Your task to perform on an android device: clear history in the chrome app Image 0: 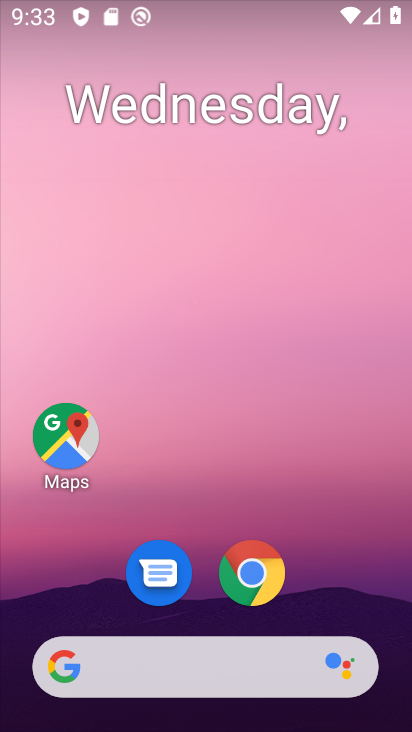
Step 0: click (252, 575)
Your task to perform on an android device: clear history in the chrome app Image 1: 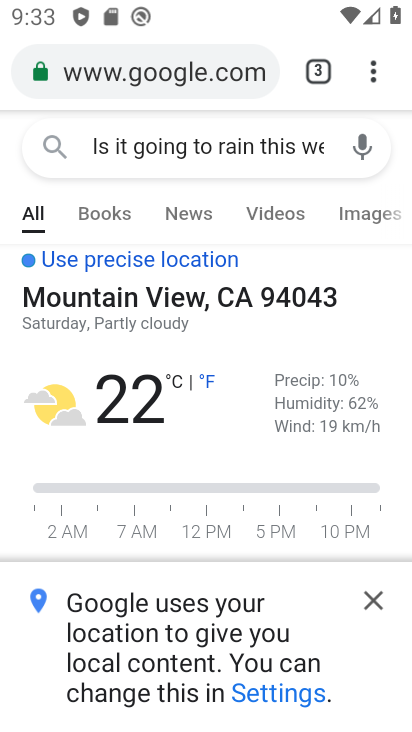
Step 1: click (368, 69)
Your task to perform on an android device: clear history in the chrome app Image 2: 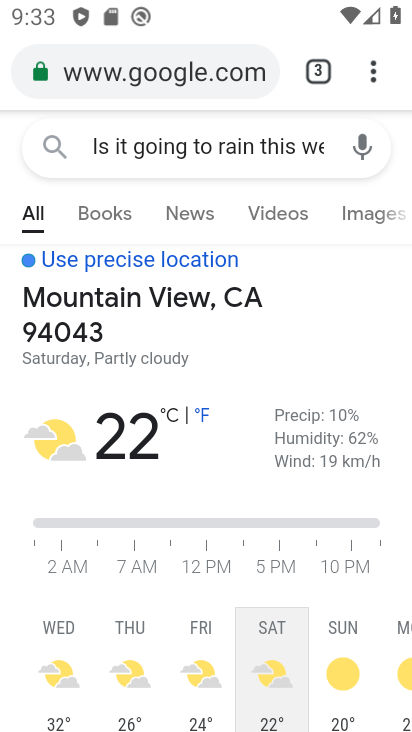
Step 2: click (360, 67)
Your task to perform on an android device: clear history in the chrome app Image 3: 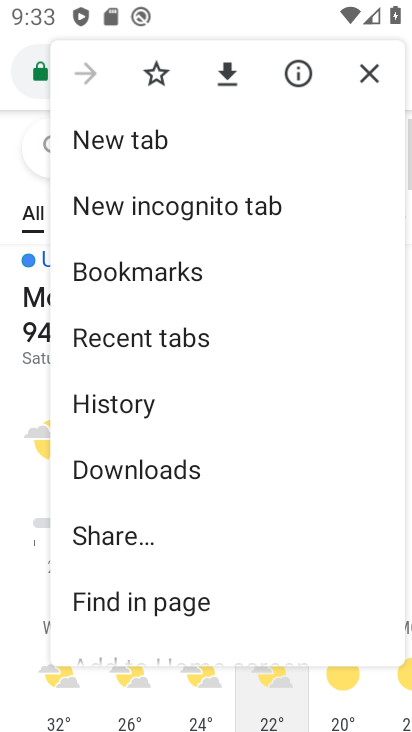
Step 3: click (160, 406)
Your task to perform on an android device: clear history in the chrome app Image 4: 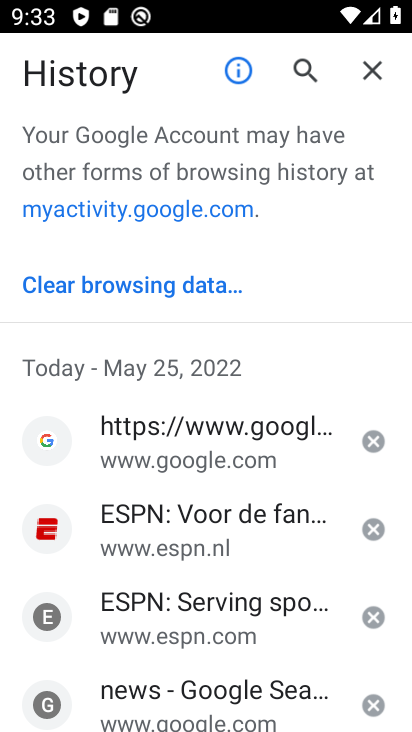
Step 4: click (158, 279)
Your task to perform on an android device: clear history in the chrome app Image 5: 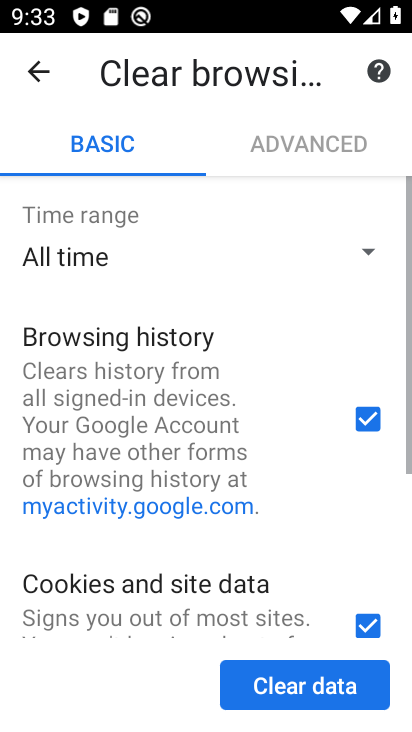
Step 5: click (323, 689)
Your task to perform on an android device: clear history in the chrome app Image 6: 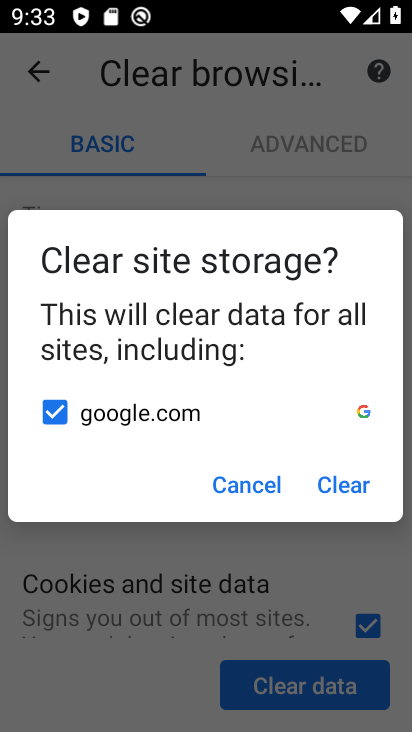
Step 6: click (361, 472)
Your task to perform on an android device: clear history in the chrome app Image 7: 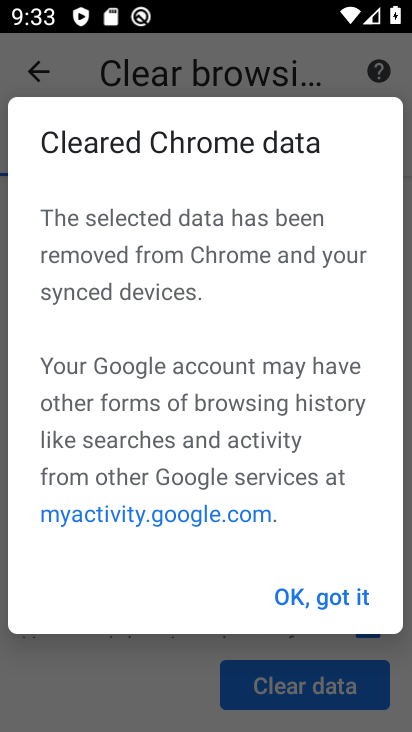
Step 7: click (334, 600)
Your task to perform on an android device: clear history in the chrome app Image 8: 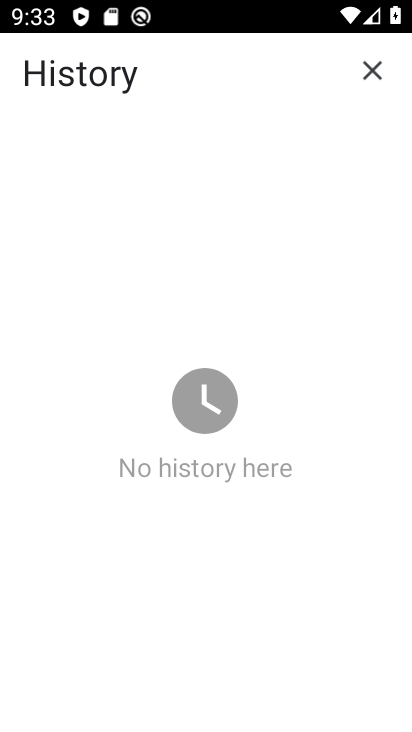
Step 8: task complete